Your task to perform on an android device: Search for Mexican restaurants on Maps Image 0: 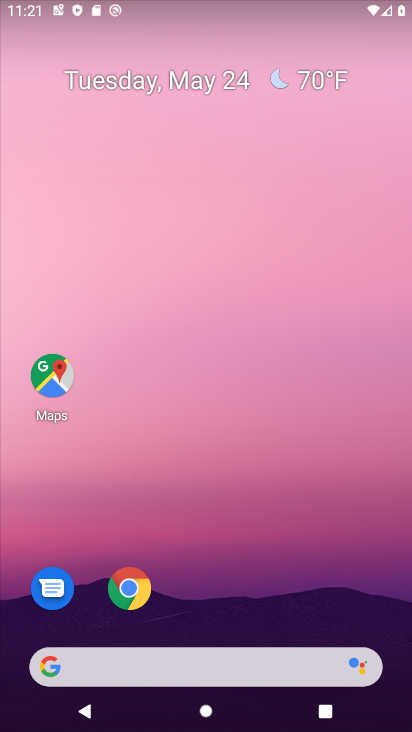
Step 0: press home button
Your task to perform on an android device: Search for Mexican restaurants on Maps Image 1: 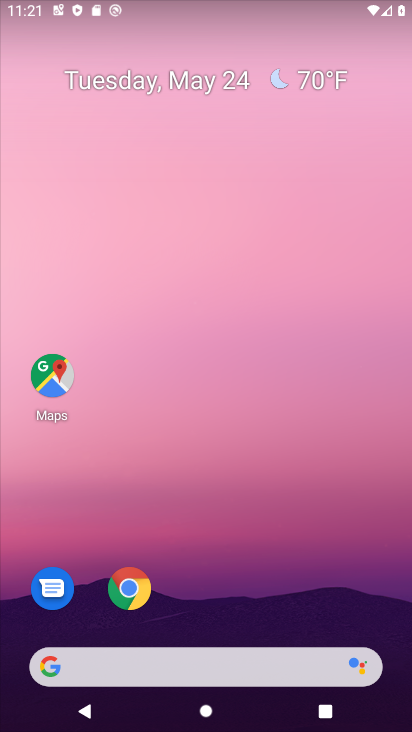
Step 1: click (56, 375)
Your task to perform on an android device: Search for Mexican restaurants on Maps Image 2: 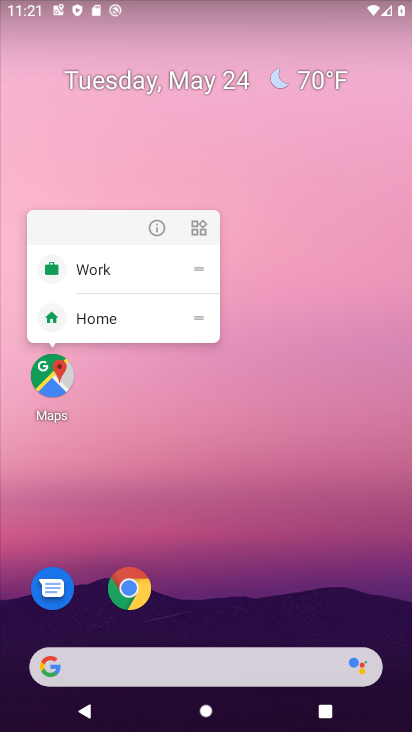
Step 2: click (50, 373)
Your task to perform on an android device: Search for Mexican restaurants on Maps Image 3: 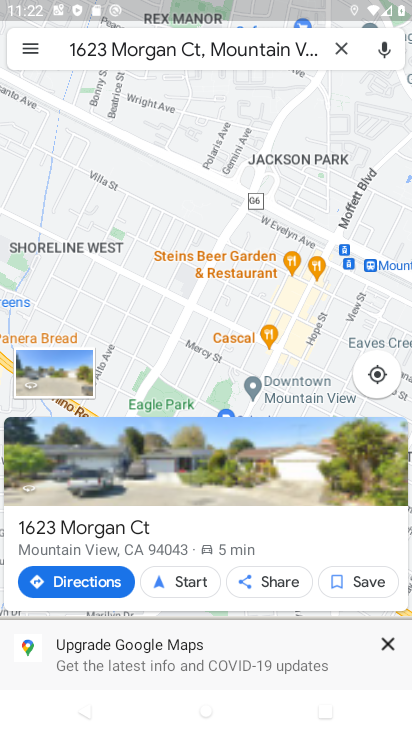
Step 3: click (341, 45)
Your task to perform on an android device: Search for Mexican restaurants on Maps Image 4: 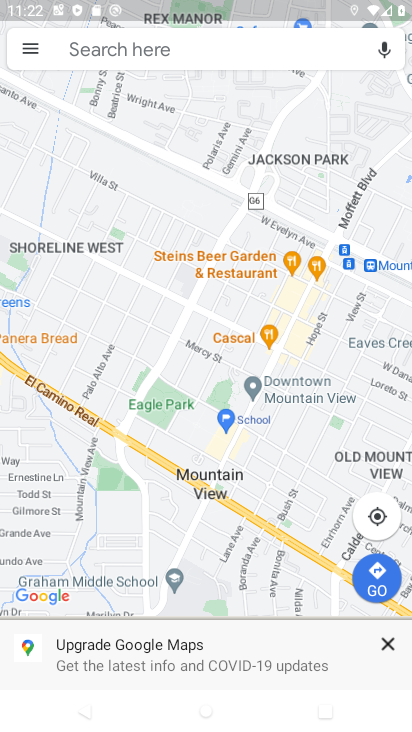
Step 4: click (126, 48)
Your task to perform on an android device: Search for Mexican restaurants on Maps Image 5: 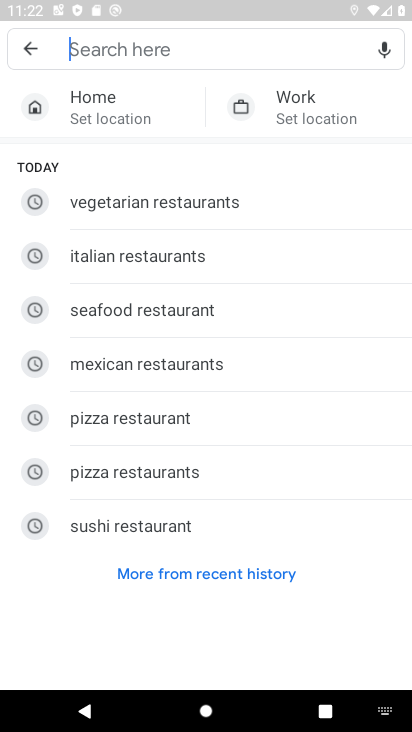
Step 5: click (136, 372)
Your task to perform on an android device: Search for Mexican restaurants on Maps Image 6: 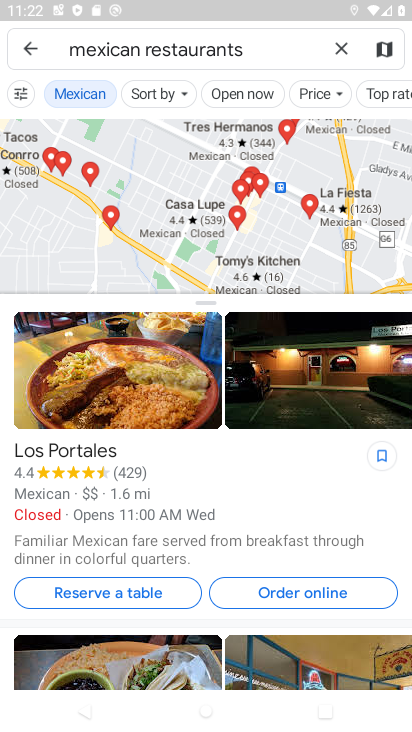
Step 6: drag from (212, 551) to (252, 234)
Your task to perform on an android device: Search for Mexican restaurants on Maps Image 7: 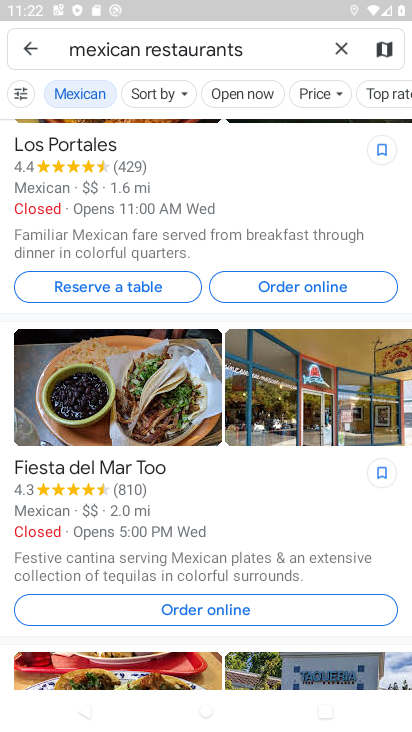
Step 7: drag from (228, 570) to (242, 200)
Your task to perform on an android device: Search for Mexican restaurants on Maps Image 8: 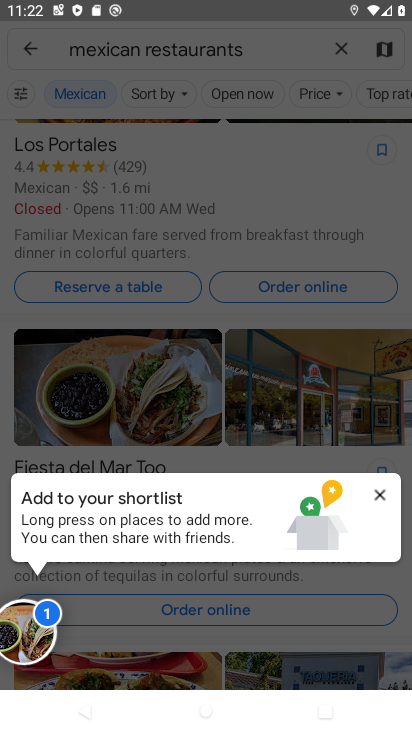
Step 8: click (380, 494)
Your task to perform on an android device: Search for Mexican restaurants on Maps Image 9: 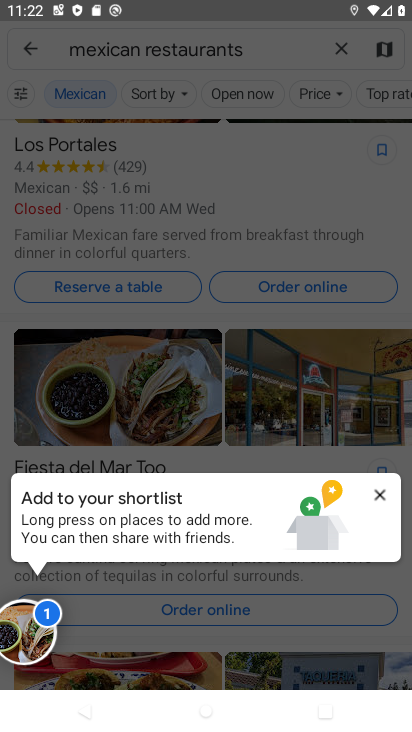
Step 9: drag from (77, 509) to (227, 708)
Your task to perform on an android device: Search for Mexican restaurants on Maps Image 10: 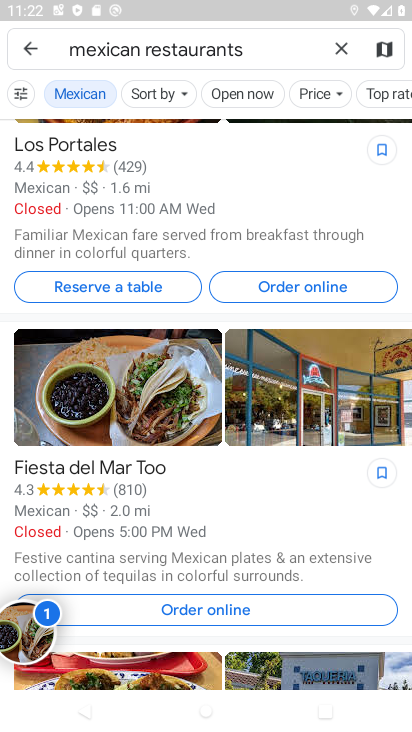
Step 10: drag from (32, 625) to (233, 715)
Your task to perform on an android device: Search for Mexican restaurants on Maps Image 11: 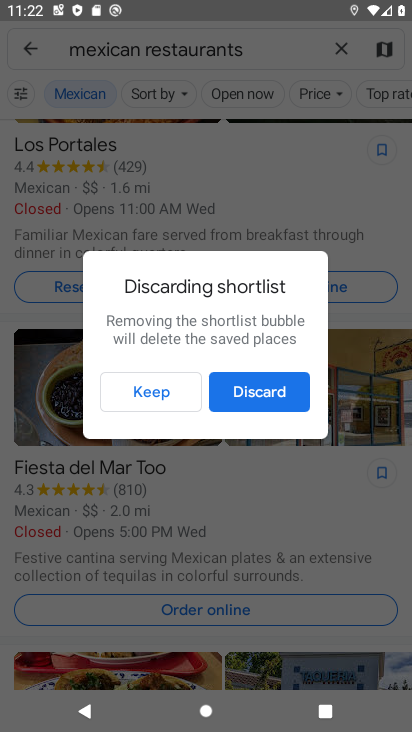
Step 11: click (253, 385)
Your task to perform on an android device: Search for Mexican restaurants on Maps Image 12: 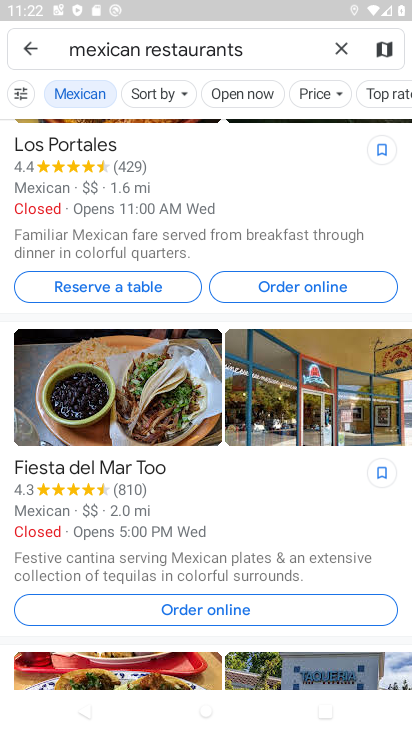
Step 12: task complete